Your task to perform on an android device: Do I have any events tomorrow? Image 0: 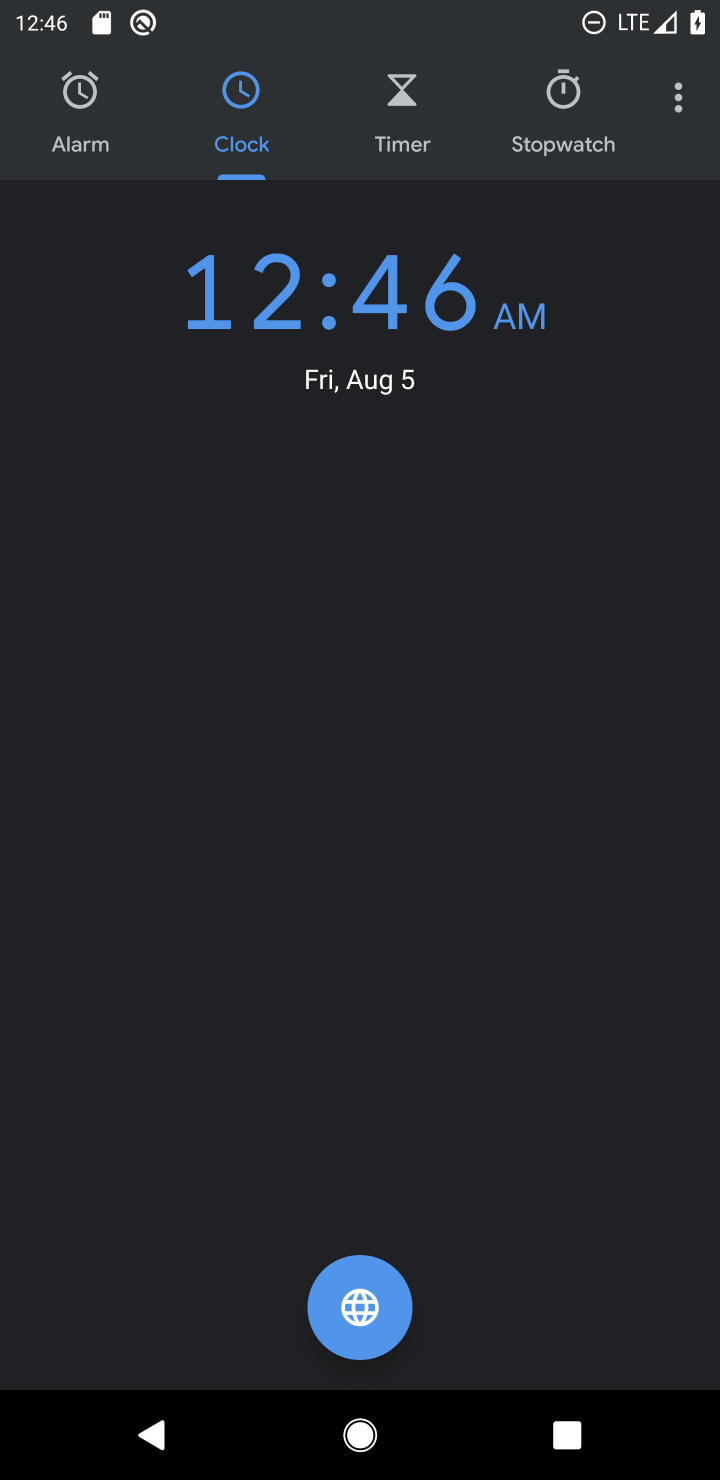
Step 0: press home button
Your task to perform on an android device: Do I have any events tomorrow? Image 1: 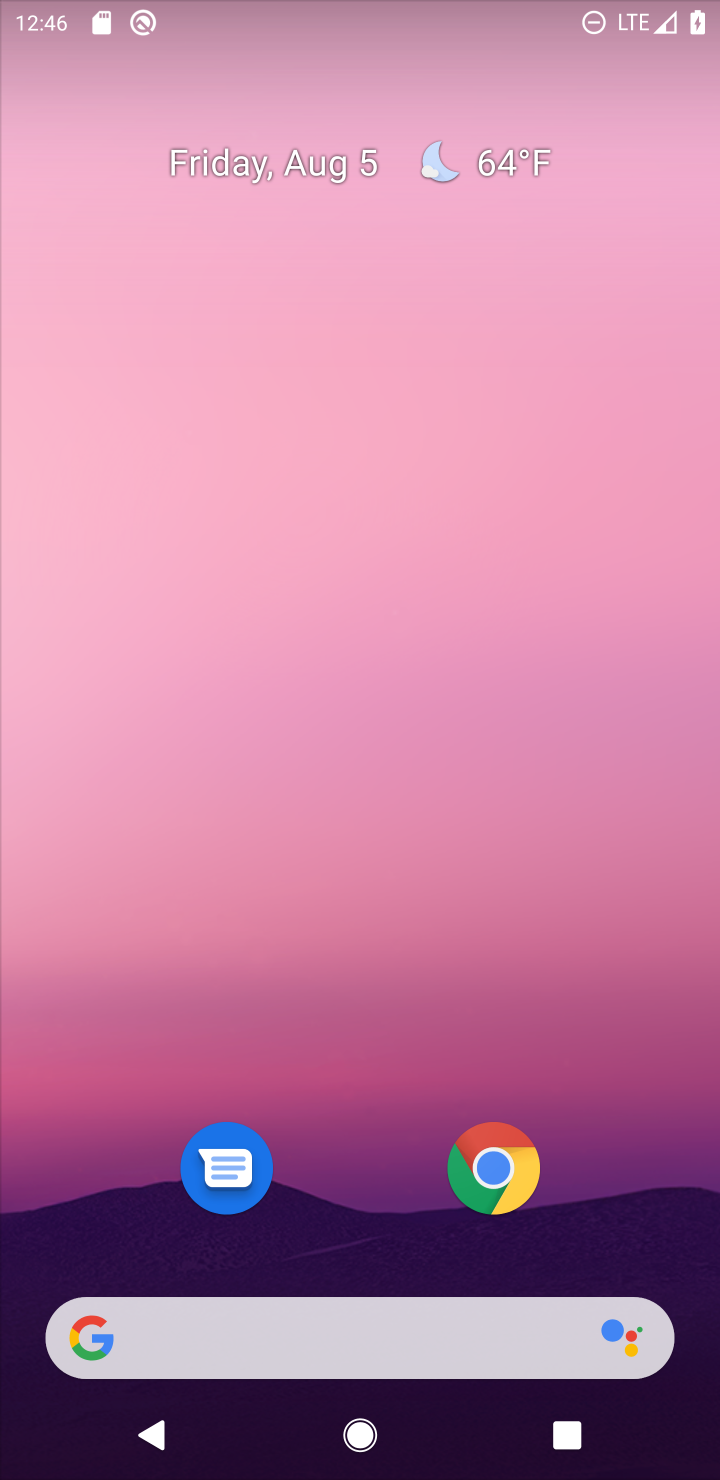
Step 1: drag from (591, 958) to (465, 105)
Your task to perform on an android device: Do I have any events tomorrow? Image 2: 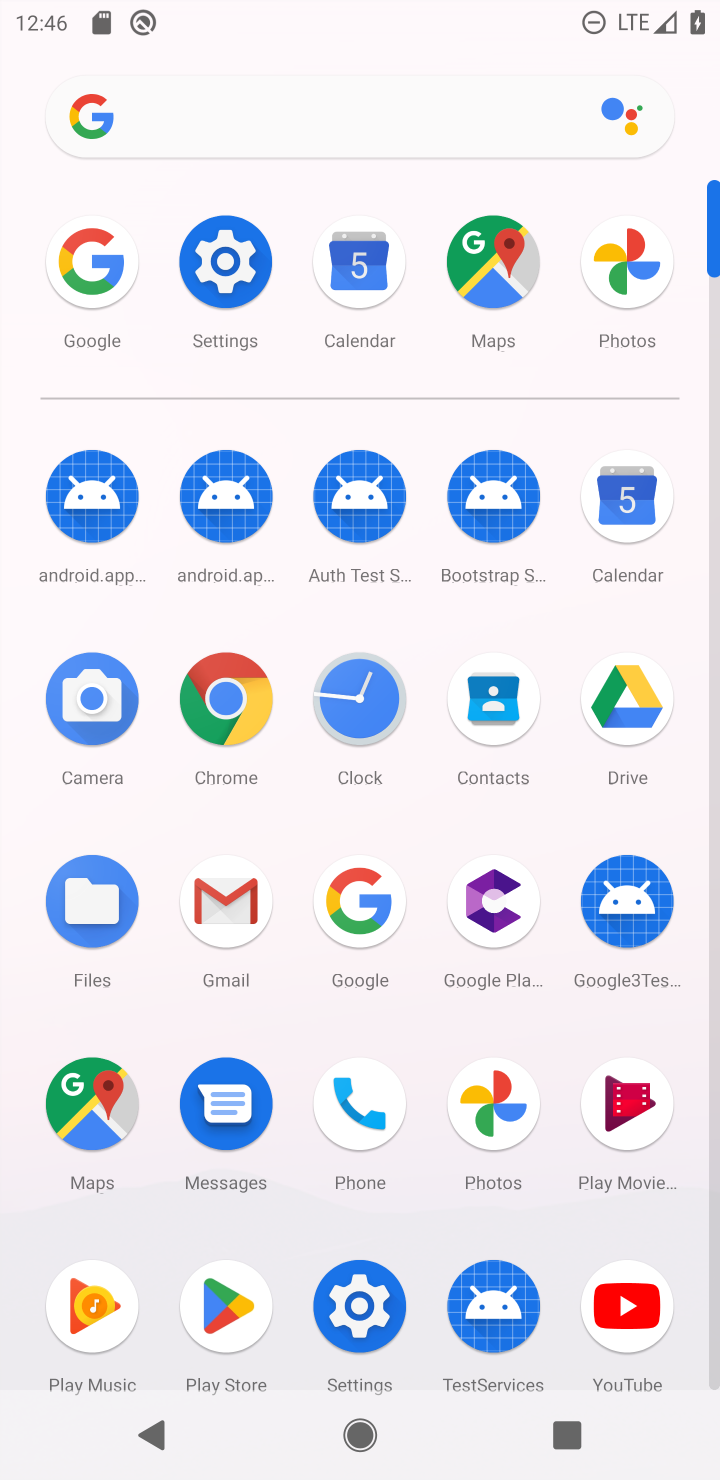
Step 2: click (609, 470)
Your task to perform on an android device: Do I have any events tomorrow? Image 3: 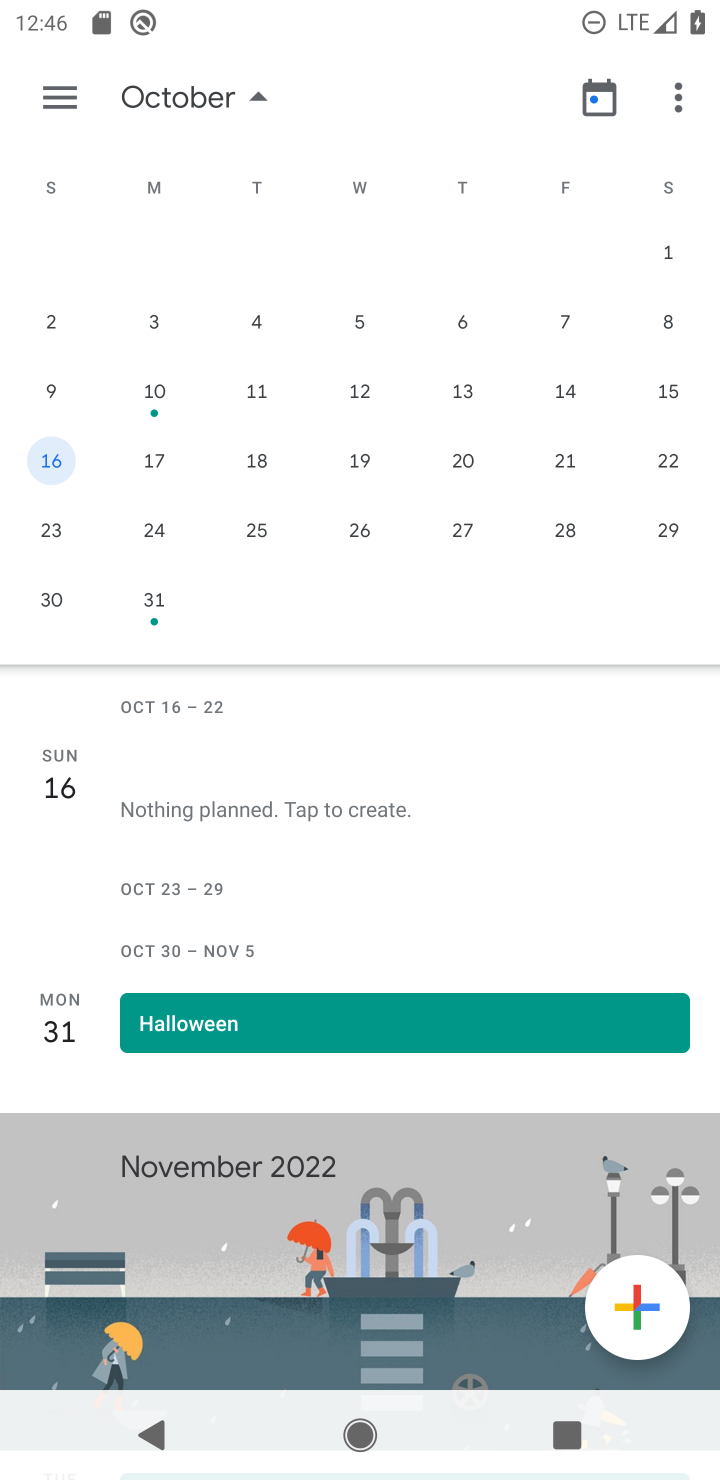
Step 3: task complete